Your task to perform on an android device: turn off priority inbox in the gmail app Image 0: 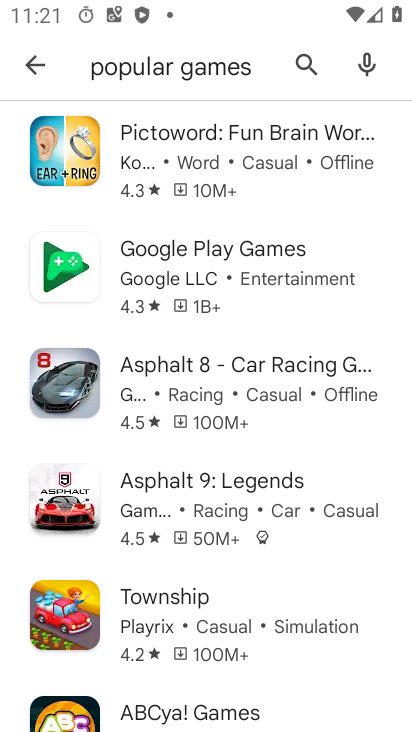
Step 0: press home button
Your task to perform on an android device: turn off priority inbox in the gmail app Image 1: 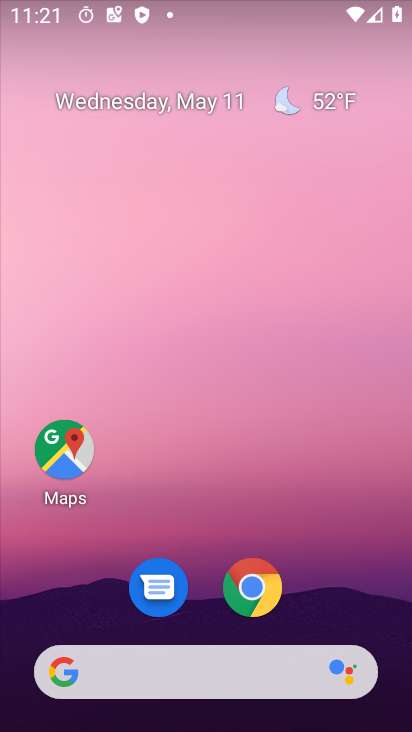
Step 1: drag from (260, 697) to (356, 275)
Your task to perform on an android device: turn off priority inbox in the gmail app Image 2: 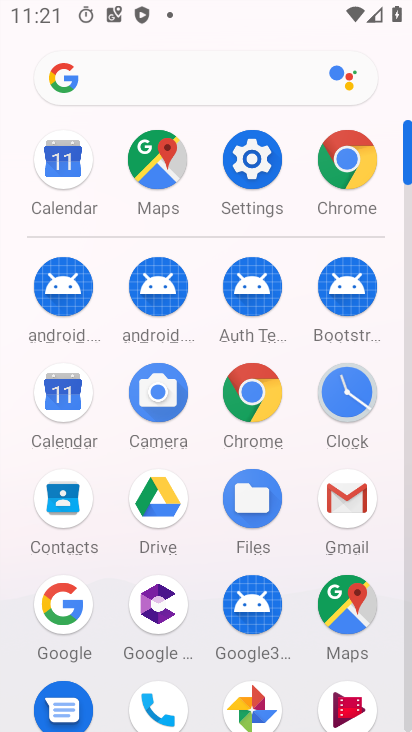
Step 2: click (337, 512)
Your task to perform on an android device: turn off priority inbox in the gmail app Image 3: 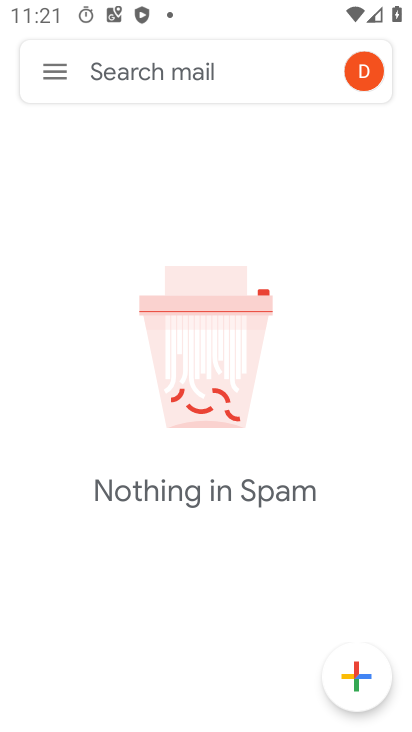
Step 3: click (57, 85)
Your task to perform on an android device: turn off priority inbox in the gmail app Image 4: 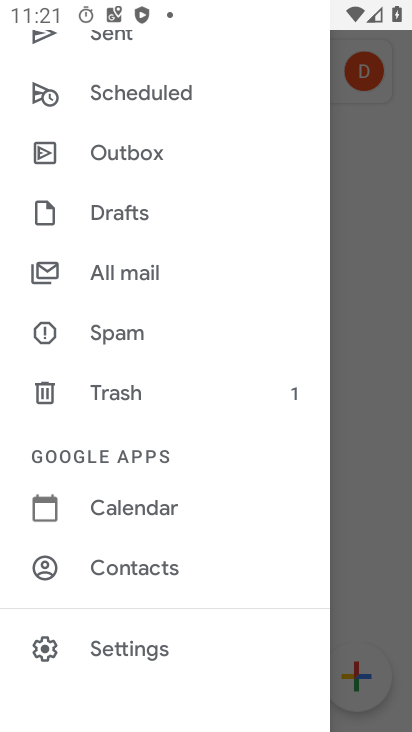
Step 4: click (132, 641)
Your task to perform on an android device: turn off priority inbox in the gmail app Image 5: 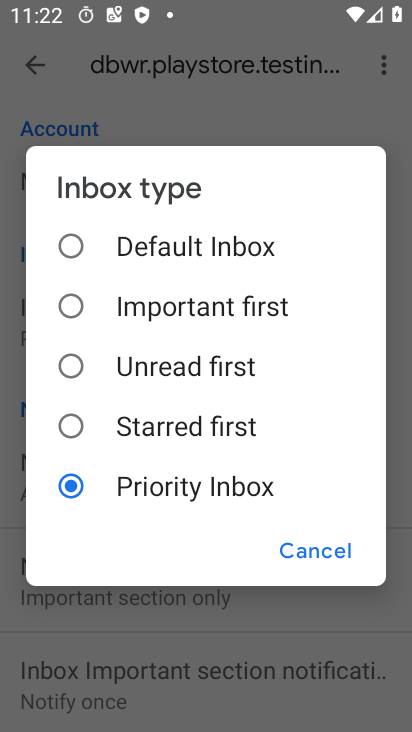
Step 5: click (173, 249)
Your task to perform on an android device: turn off priority inbox in the gmail app Image 6: 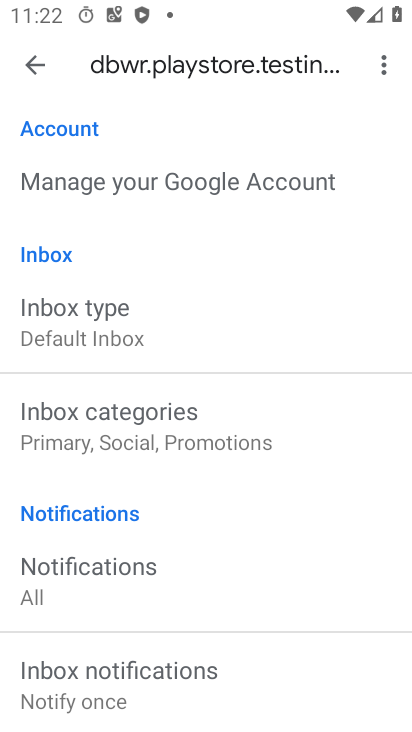
Step 6: task complete